Your task to perform on an android device: change notification settings in the gmail app Image 0: 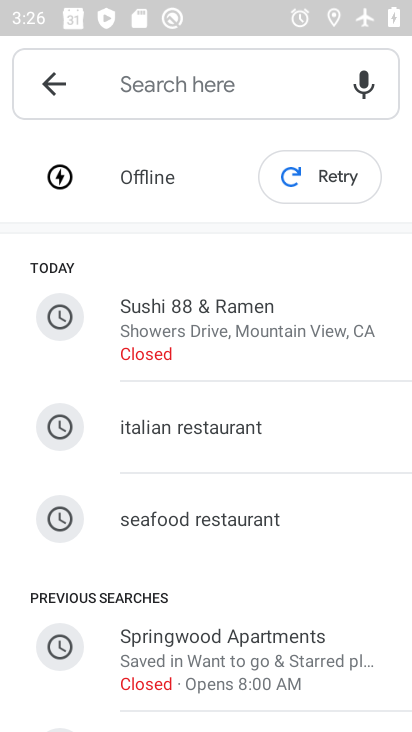
Step 0: press home button
Your task to perform on an android device: change notification settings in the gmail app Image 1: 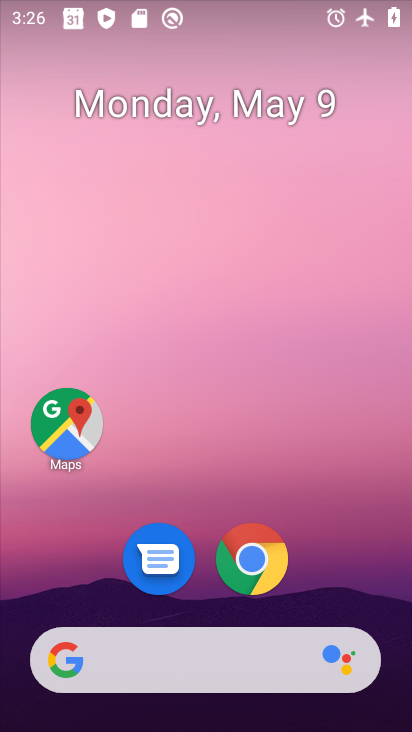
Step 1: drag from (202, 717) to (197, 71)
Your task to perform on an android device: change notification settings in the gmail app Image 2: 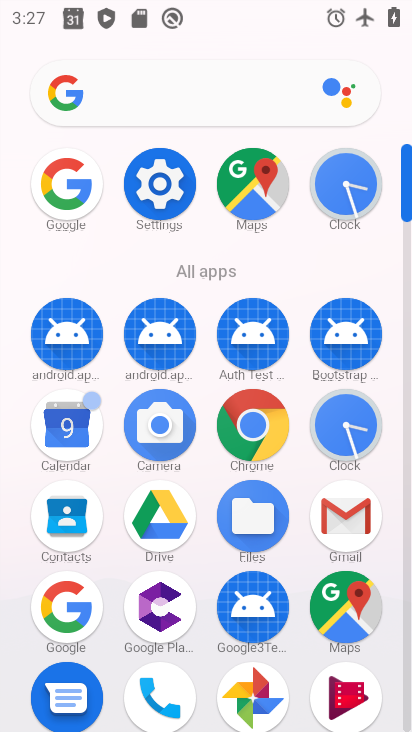
Step 2: click (352, 511)
Your task to perform on an android device: change notification settings in the gmail app Image 3: 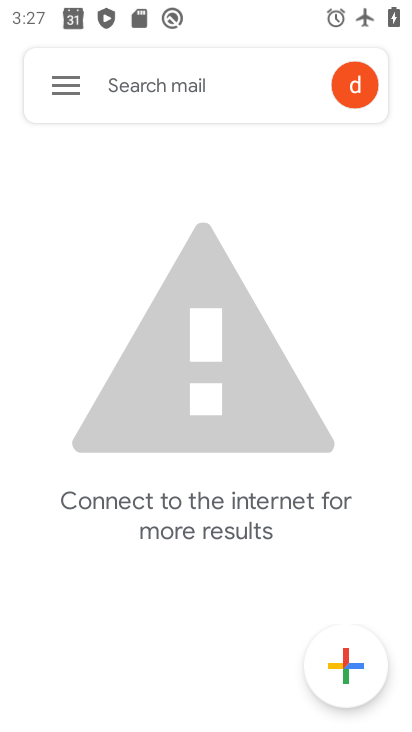
Step 3: click (67, 89)
Your task to perform on an android device: change notification settings in the gmail app Image 4: 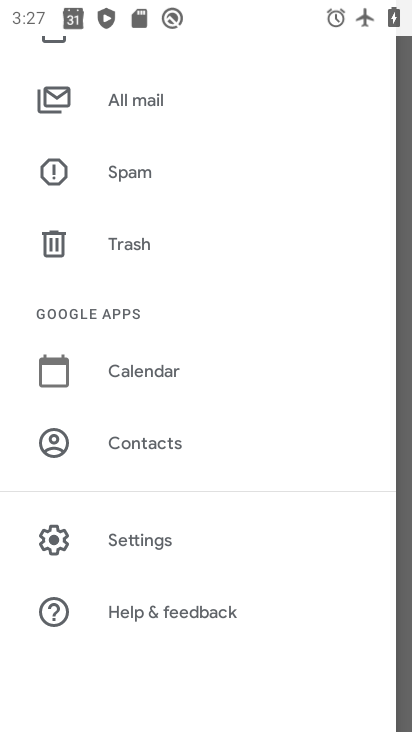
Step 4: click (137, 533)
Your task to perform on an android device: change notification settings in the gmail app Image 5: 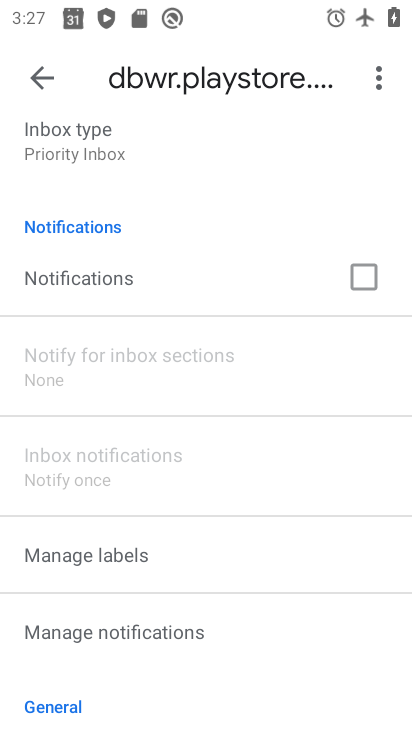
Step 5: drag from (196, 660) to (219, 618)
Your task to perform on an android device: change notification settings in the gmail app Image 6: 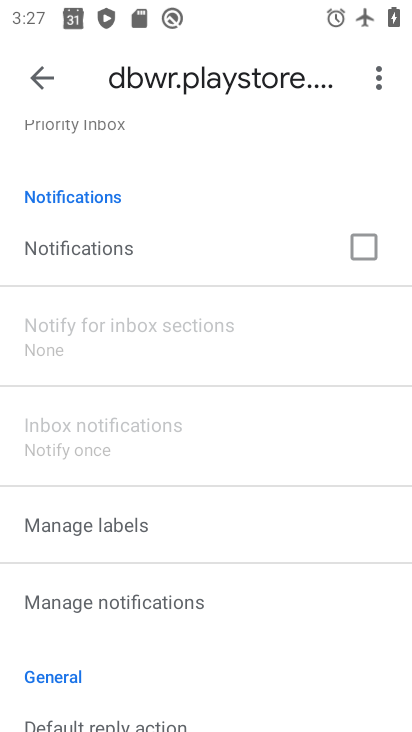
Step 6: click (366, 250)
Your task to perform on an android device: change notification settings in the gmail app Image 7: 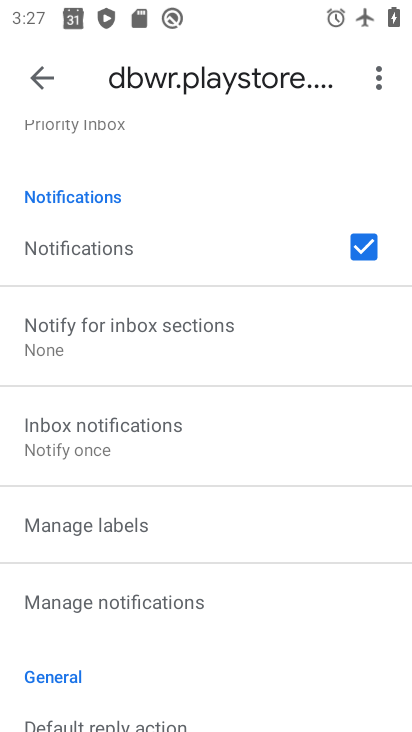
Step 7: task complete